Your task to perform on an android device: Find coffee shops on Maps Image 0: 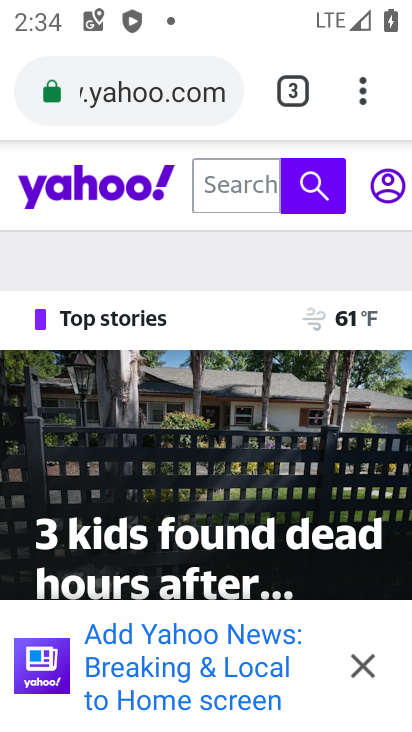
Step 0: press home button
Your task to perform on an android device: Find coffee shops on Maps Image 1: 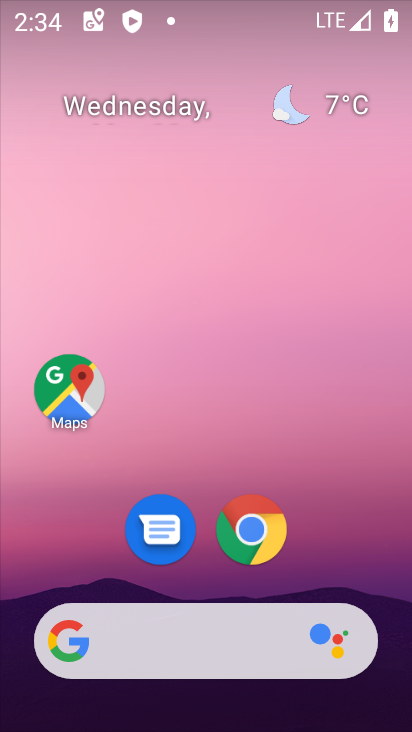
Step 1: drag from (348, 543) to (270, 133)
Your task to perform on an android device: Find coffee shops on Maps Image 2: 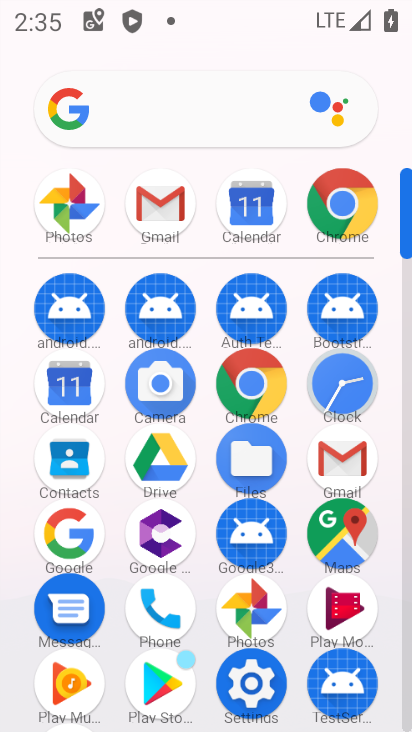
Step 2: click (355, 532)
Your task to perform on an android device: Find coffee shops on Maps Image 3: 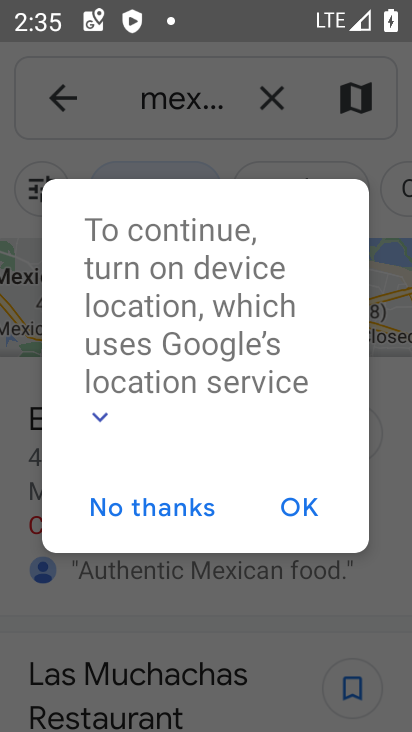
Step 3: click (189, 510)
Your task to perform on an android device: Find coffee shops on Maps Image 4: 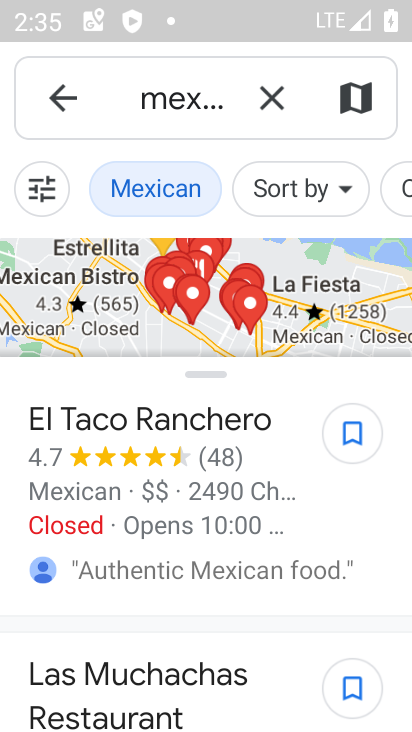
Step 4: click (280, 90)
Your task to perform on an android device: Find coffee shops on Maps Image 5: 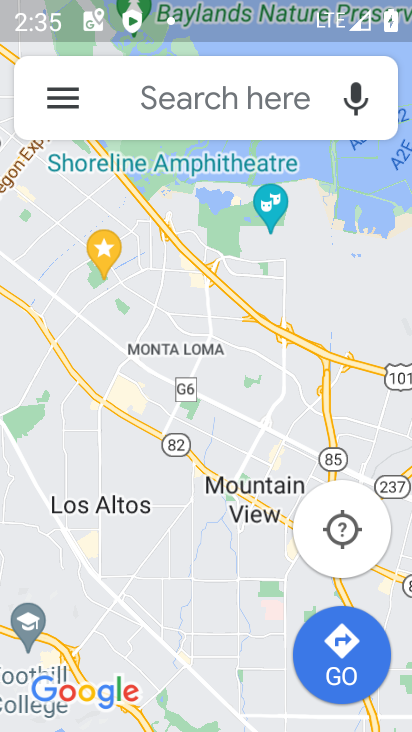
Step 5: click (242, 96)
Your task to perform on an android device: Find coffee shops on Maps Image 6: 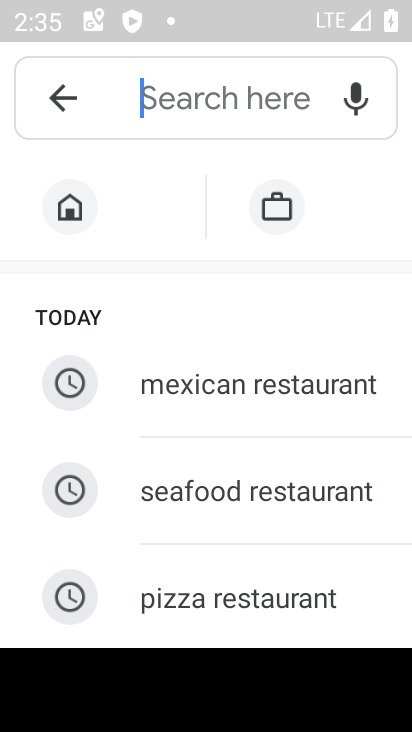
Step 6: drag from (335, 575) to (291, 221)
Your task to perform on an android device: Find coffee shops on Maps Image 7: 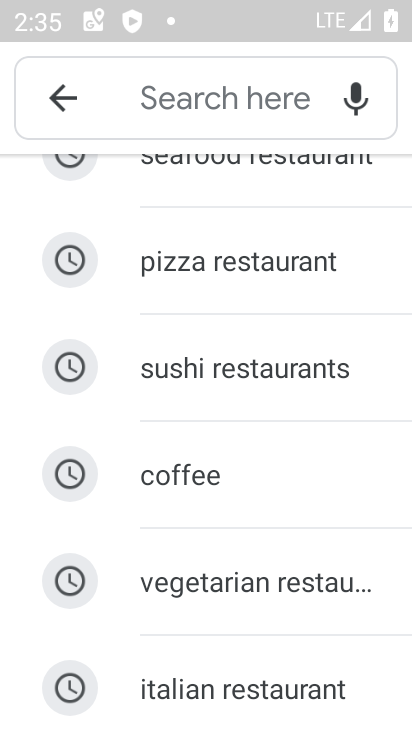
Step 7: click (226, 469)
Your task to perform on an android device: Find coffee shops on Maps Image 8: 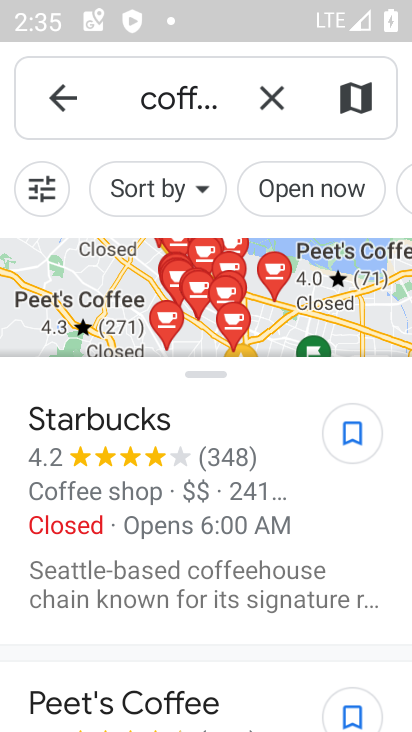
Step 8: task complete